Your task to perform on an android device: see sites visited before in the chrome app Image 0: 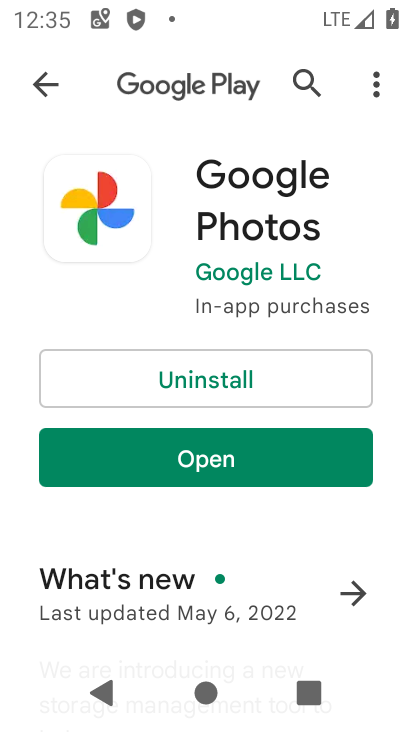
Step 0: press home button
Your task to perform on an android device: see sites visited before in the chrome app Image 1: 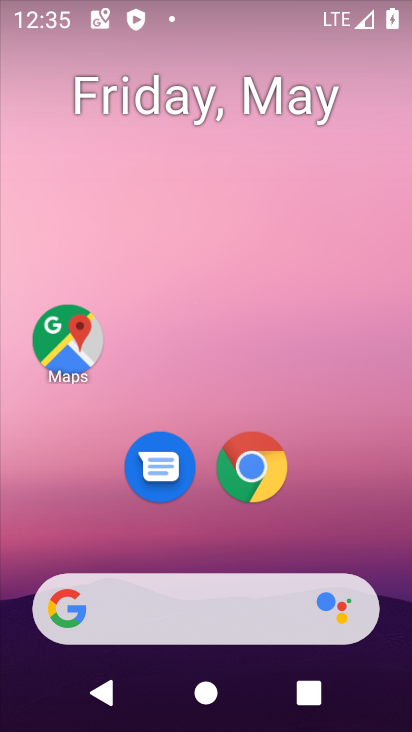
Step 1: click (254, 468)
Your task to perform on an android device: see sites visited before in the chrome app Image 2: 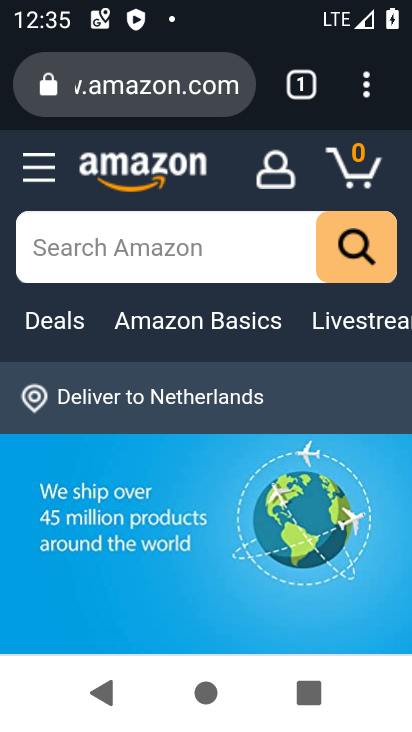
Step 2: click (372, 85)
Your task to perform on an android device: see sites visited before in the chrome app Image 3: 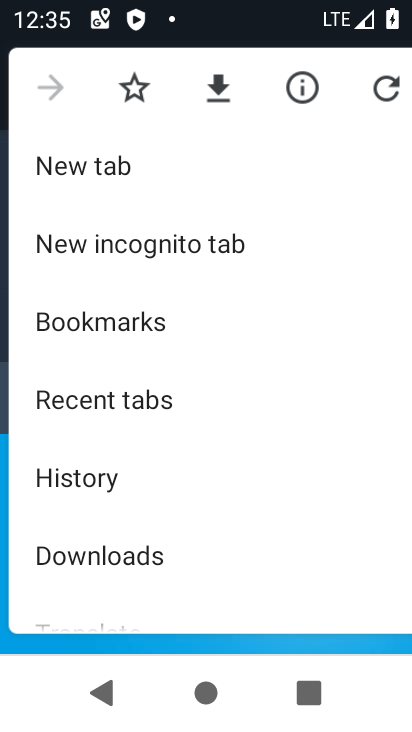
Step 3: click (91, 475)
Your task to perform on an android device: see sites visited before in the chrome app Image 4: 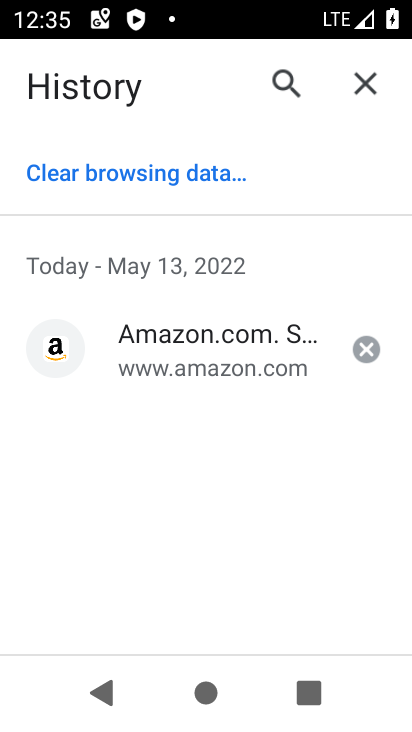
Step 4: task complete